Your task to perform on an android device: Go to Google Image 0: 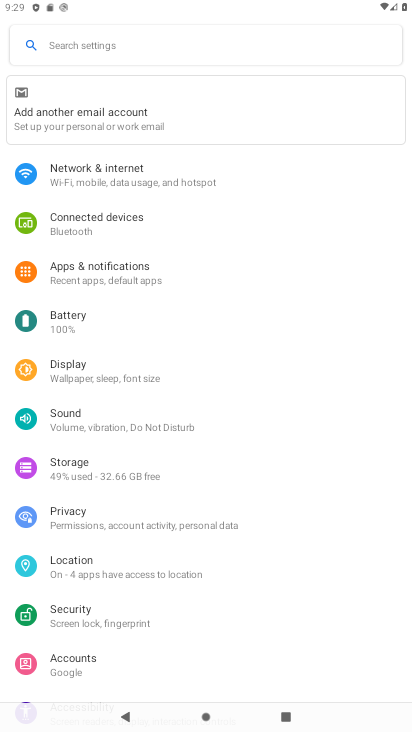
Step 0: press home button
Your task to perform on an android device: Go to Google Image 1: 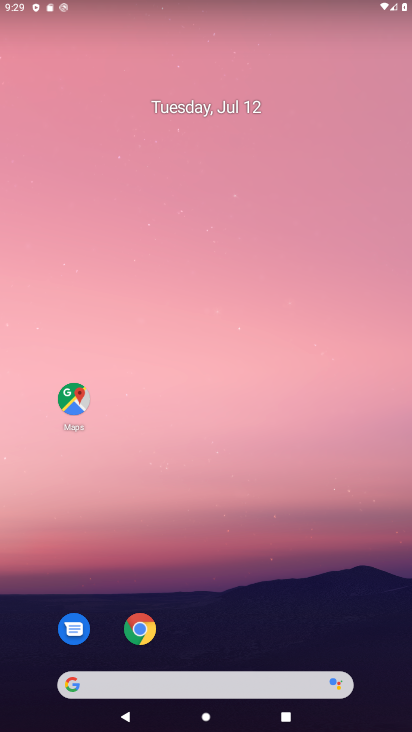
Step 1: drag from (350, 601) to (242, 73)
Your task to perform on an android device: Go to Google Image 2: 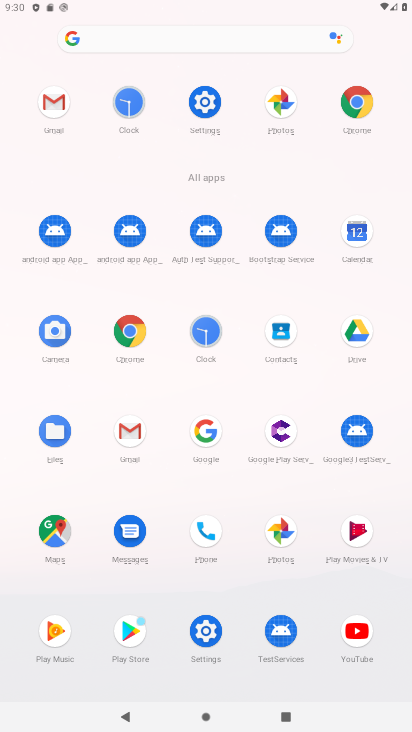
Step 2: click (206, 430)
Your task to perform on an android device: Go to Google Image 3: 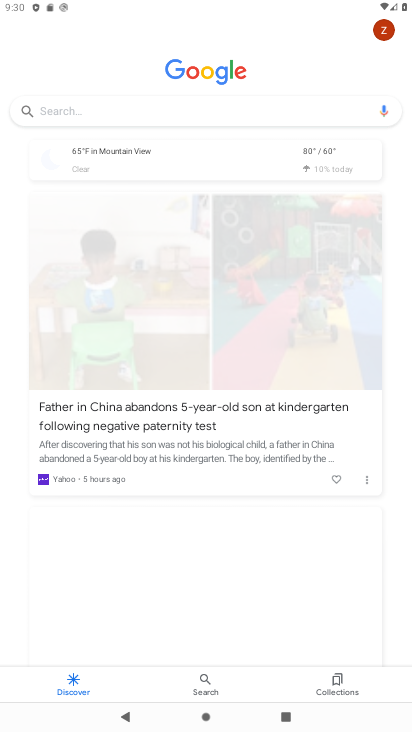
Step 3: task complete